Your task to perform on an android device: see tabs open on other devices in the chrome app Image 0: 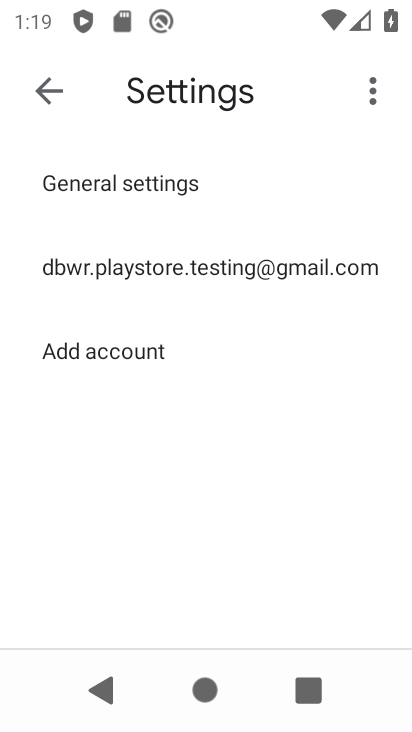
Step 0: press home button
Your task to perform on an android device: see tabs open on other devices in the chrome app Image 1: 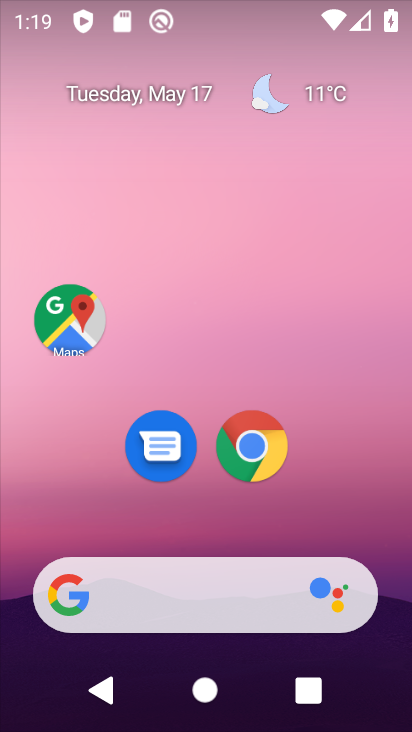
Step 1: click (272, 454)
Your task to perform on an android device: see tabs open on other devices in the chrome app Image 2: 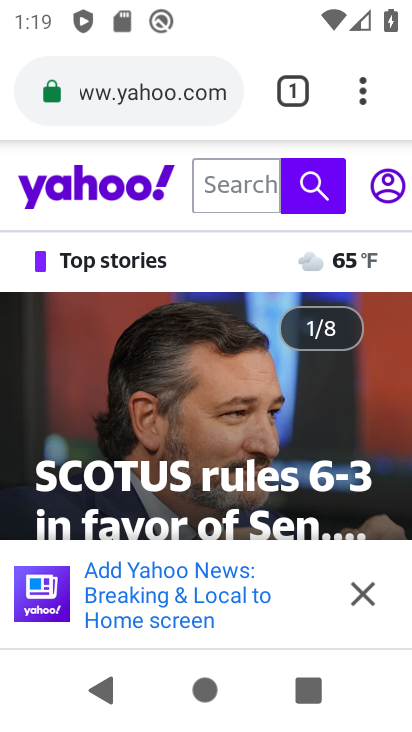
Step 2: click (369, 102)
Your task to perform on an android device: see tabs open on other devices in the chrome app Image 3: 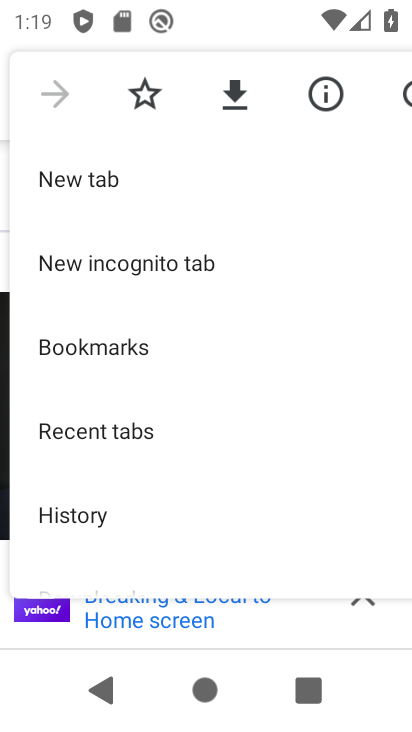
Step 3: click (90, 445)
Your task to perform on an android device: see tabs open on other devices in the chrome app Image 4: 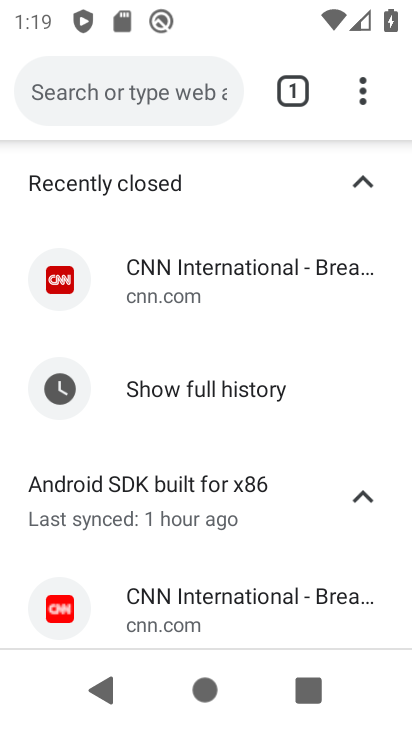
Step 4: task complete